Your task to perform on an android device: allow cookies in the chrome app Image 0: 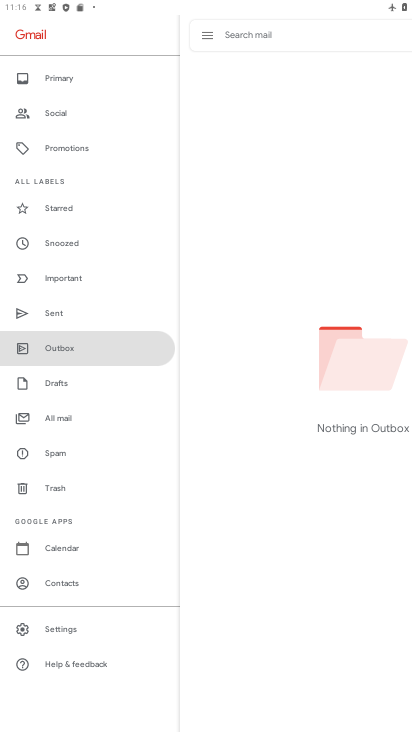
Step 0: press home button
Your task to perform on an android device: allow cookies in the chrome app Image 1: 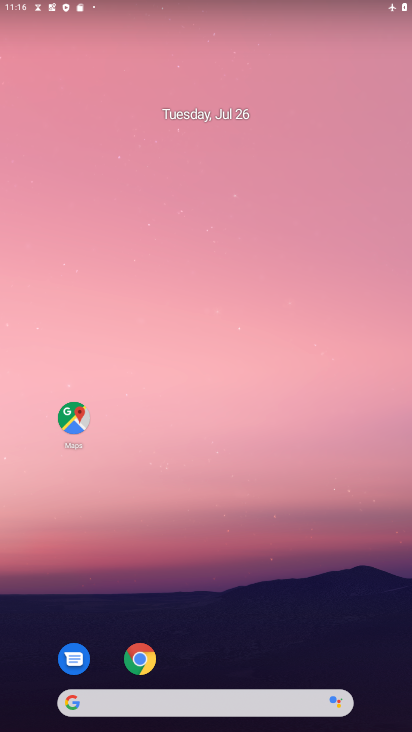
Step 1: click (141, 660)
Your task to perform on an android device: allow cookies in the chrome app Image 2: 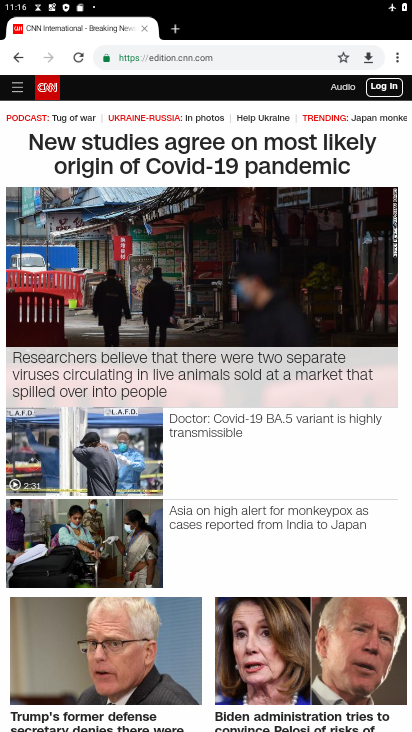
Step 2: click (397, 59)
Your task to perform on an android device: allow cookies in the chrome app Image 3: 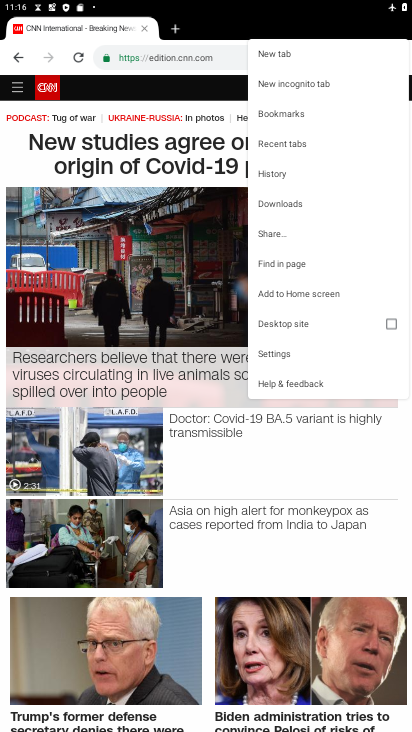
Step 3: click (281, 354)
Your task to perform on an android device: allow cookies in the chrome app Image 4: 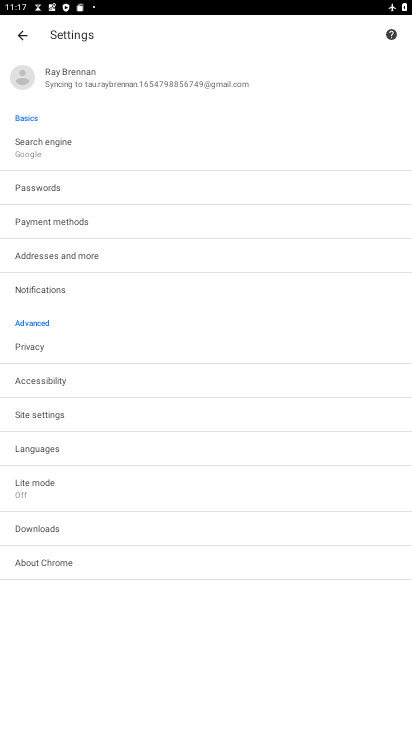
Step 4: click (55, 415)
Your task to perform on an android device: allow cookies in the chrome app Image 5: 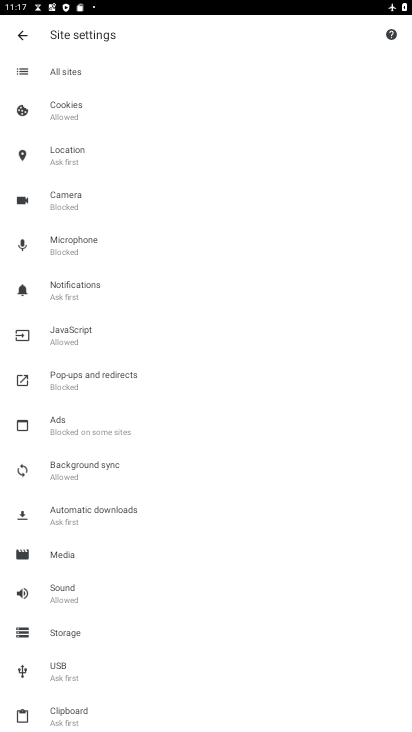
Step 5: click (72, 110)
Your task to perform on an android device: allow cookies in the chrome app Image 6: 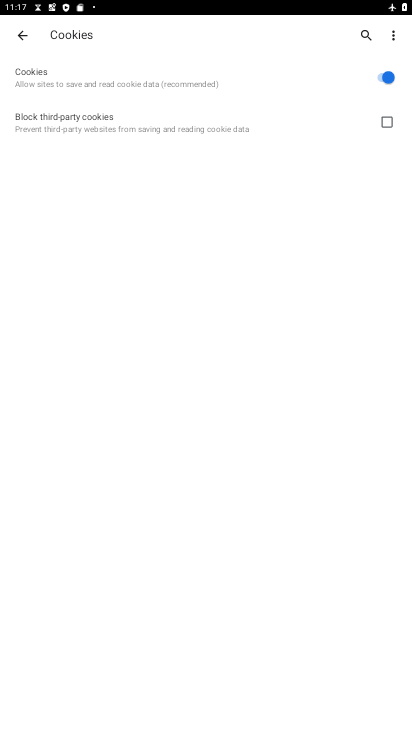
Step 6: click (386, 122)
Your task to perform on an android device: allow cookies in the chrome app Image 7: 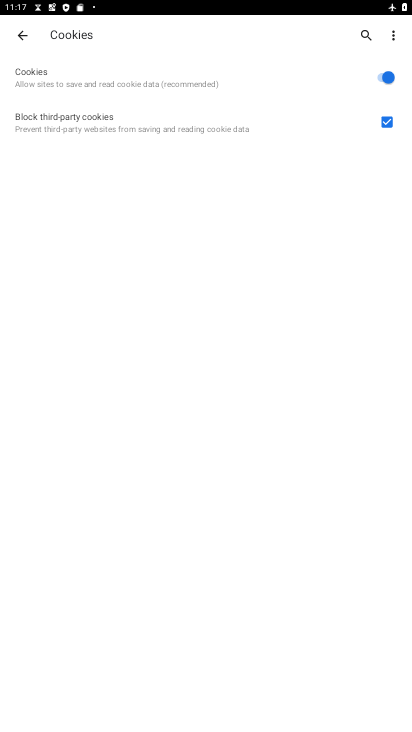
Step 7: task complete